Your task to perform on an android device: clear history in the chrome app Image 0: 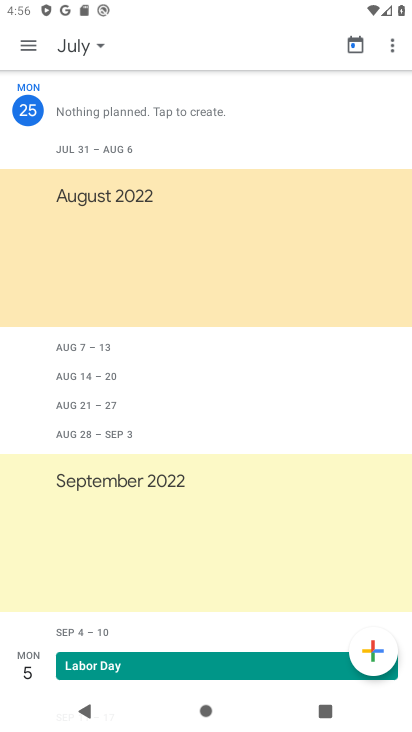
Step 0: press home button
Your task to perform on an android device: clear history in the chrome app Image 1: 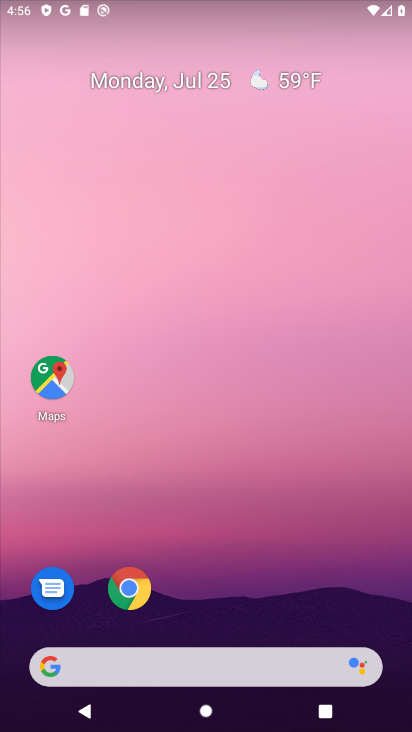
Step 1: click (129, 585)
Your task to perform on an android device: clear history in the chrome app Image 2: 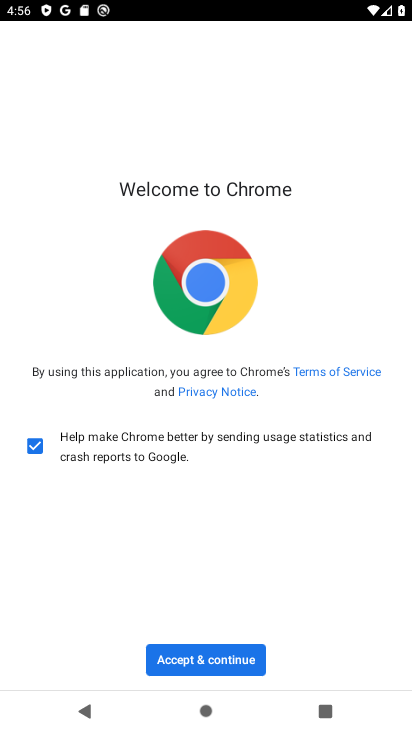
Step 2: click (198, 664)
Your task to perform on an android device: clear history in the chrome app Image 3: 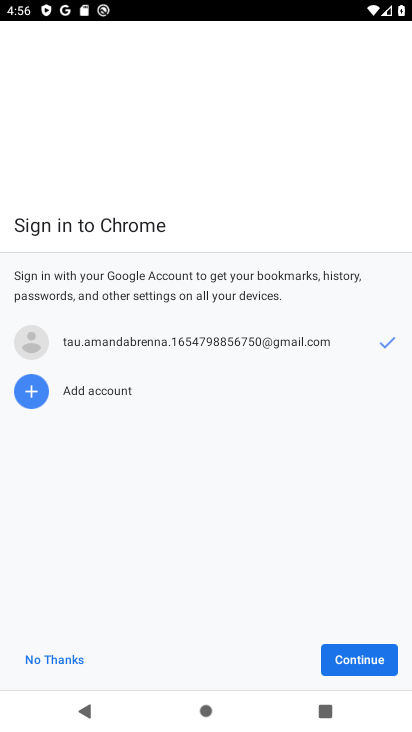
Step 3: click (338, 653)
Your task to perform on an android device: clear history in the chrome app Image 4: 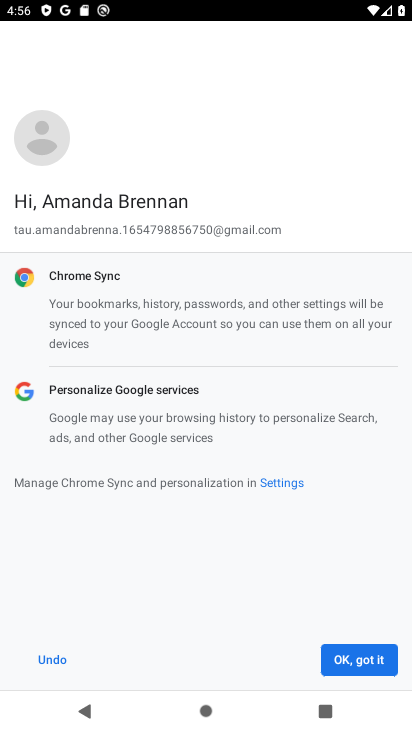
Step 4: click (356, 658)
Your task to perform on an android device: clear history in the chrome app Image 5: 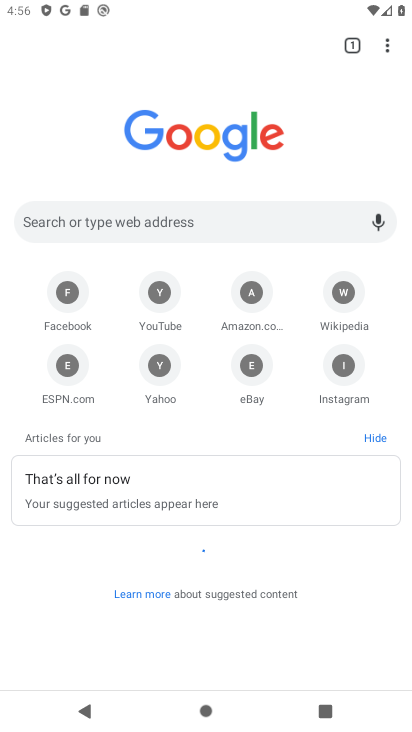
Step 5: click (384, 39)
Your task to perform on an android device: clear history in the chrome app Image 6: 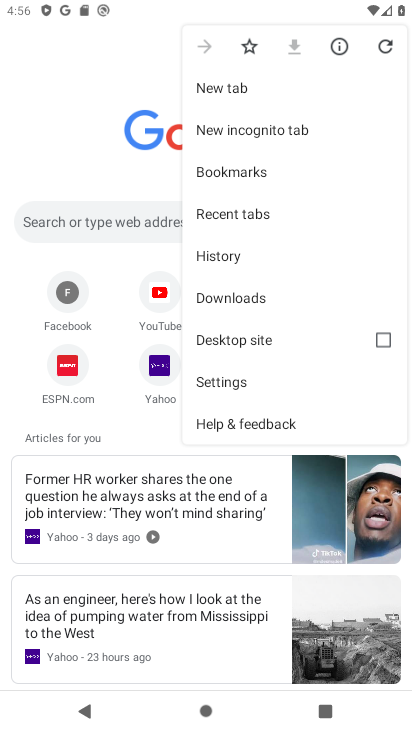
Step 6: click (239, 253)
Your task to perform on an android device: clear history in the chrome app Image 7: 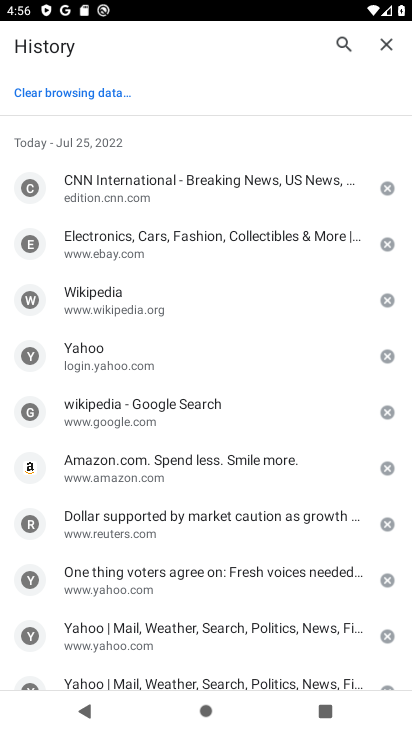
Step 7: click (96, 89)
Your task to perform on an android device: clear history in the chrome app Image 8: 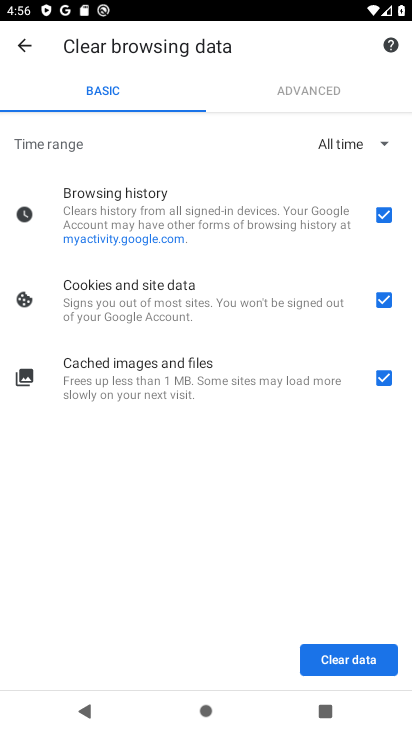
Step 8: click (338, 666)
Your task to perform on an android device: clear history in the chrome app Image 9: 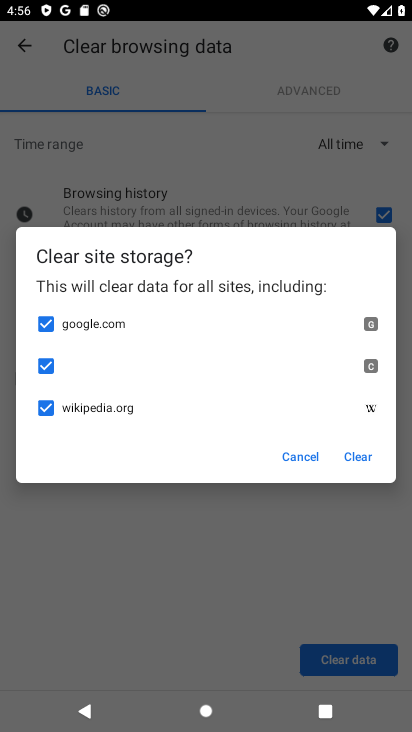
Step 9: click (360, 453)
Your task to perform on an android device: clear history in the chrome app Image 10: 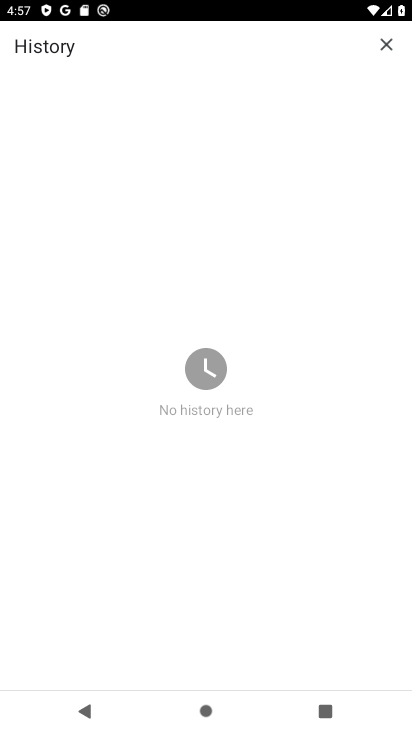
Step 10: task complete